Your task to perform on an android device: Go to notification settings Image 0: 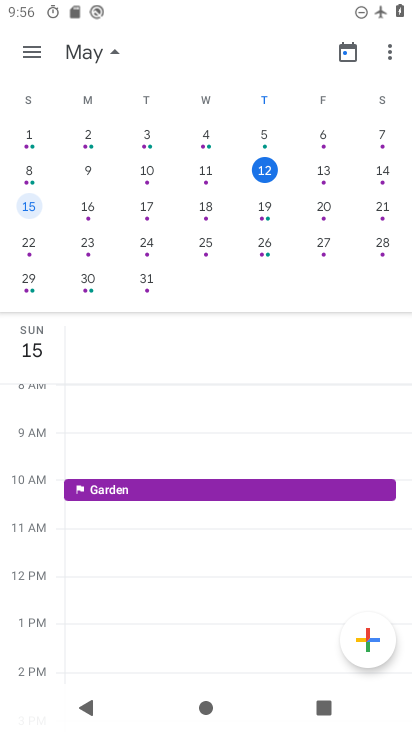
Step 0: press home button
Your task to perform on an android device: Go to notification settings Image 1: 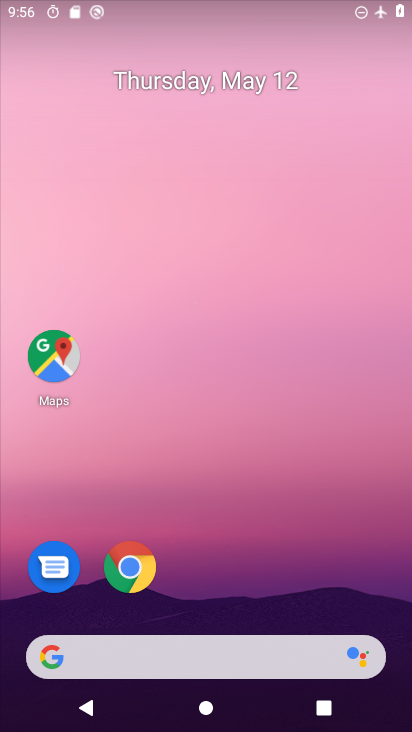
Step 1: drag from (233, 625) to (224, 196)
Your task to perform on an android device: Go to notification settings Image 2: 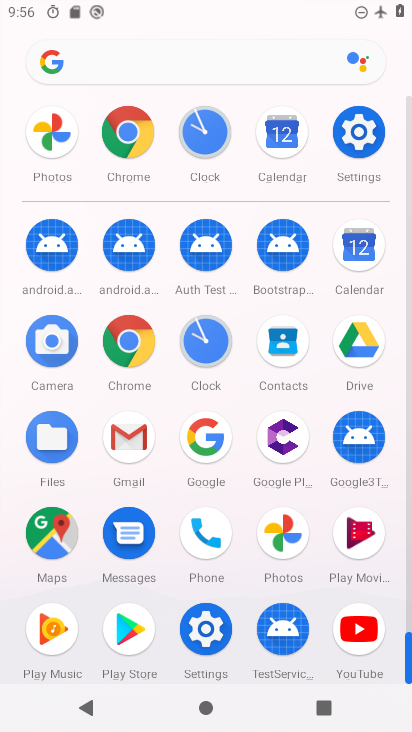
Step 2: click (366, 148)
Your task to perform on an android device: Go to notification settings Image 3: 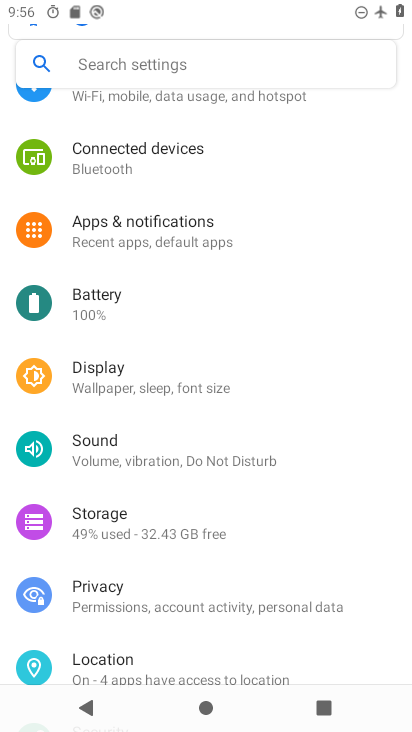
Step 3: drag from (272, 313) to (250, 546)
Your task to perform on an android device: Go to notification settings Image 4: 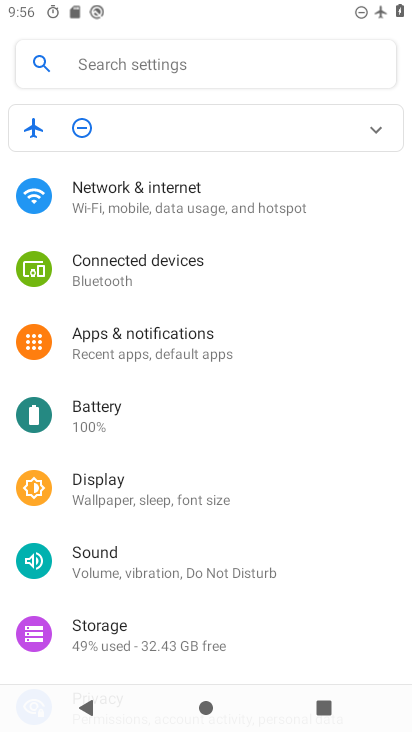
Step 4: drag from (235, 331) to (221, 546)
Your task to perform on an android device: Go to notification settings Image 5: 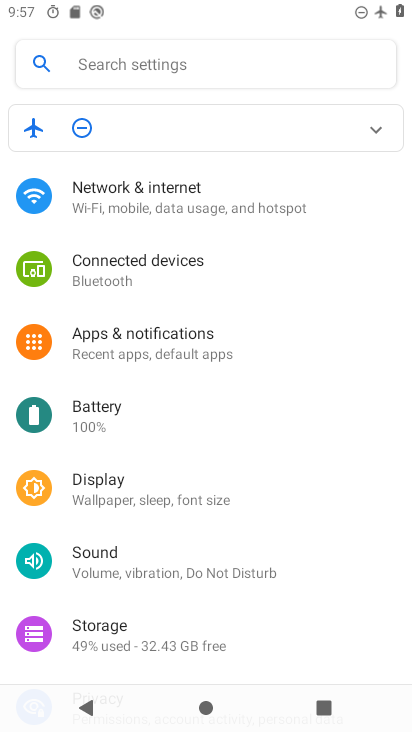
Step 5: click (234, 339)
Your task to perform on an android device: Go to notification settings Image 6: 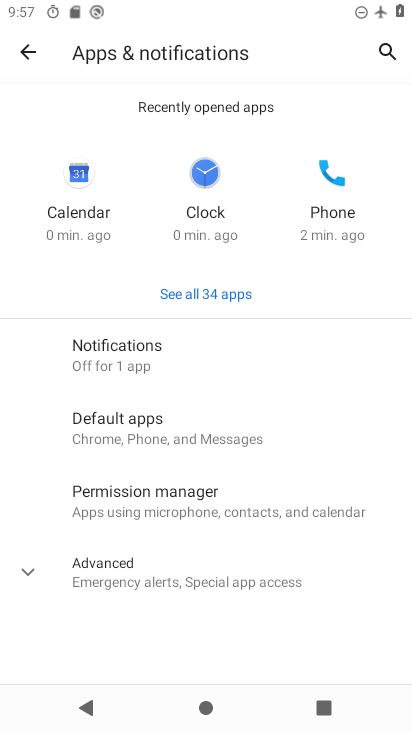
Step 6: click (233, 369)
Your task to perform on an android device: Go to notification settings Image 7: 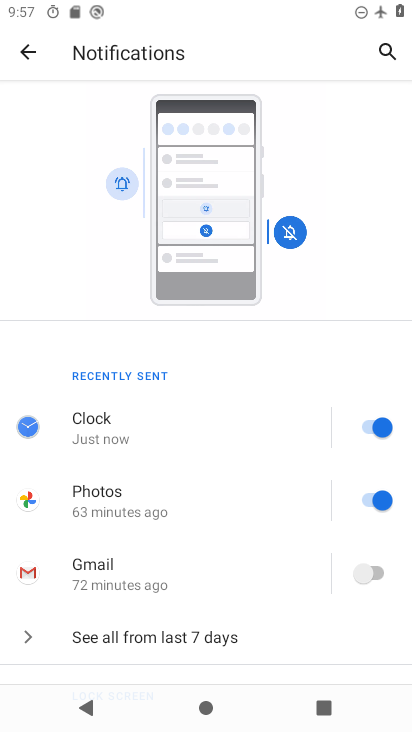
Step 7: drag from (183, 551) to (224, 229)
Your task to perform on an android device: Go to notification settings Image 8: 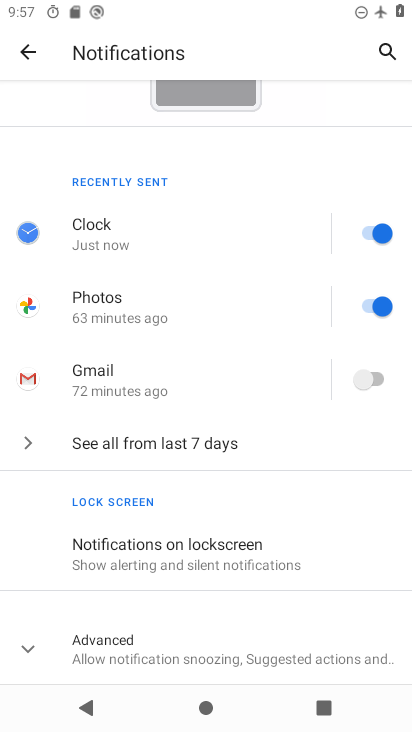
Step 8: drag from (206, 531) to (244, 286)
Your task to perform on an android device: Go to notification settings Image 9: 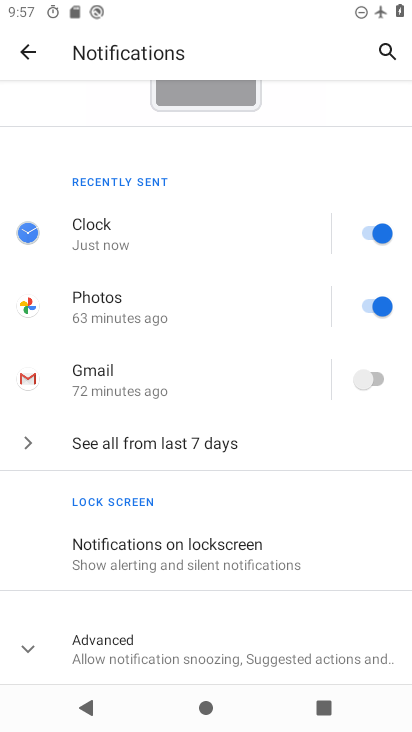
Step 9: drag from (269, 384) to (271, 650)
Your task to perform on an android device: Go to notification settings Image 10: 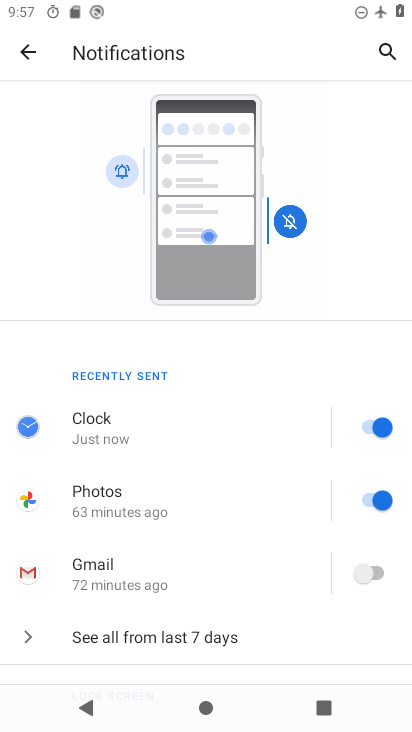
Step 10: drag from (234, 536) to (274, 229)
Your task to perform on an android device: Go to notification settings Image 11: 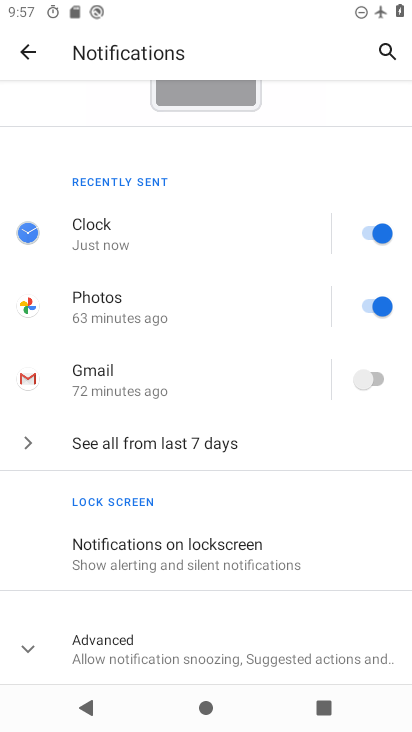
Step 11: click (208, 564)
Your task to perform on an android device: Go to notification settings Image 12: 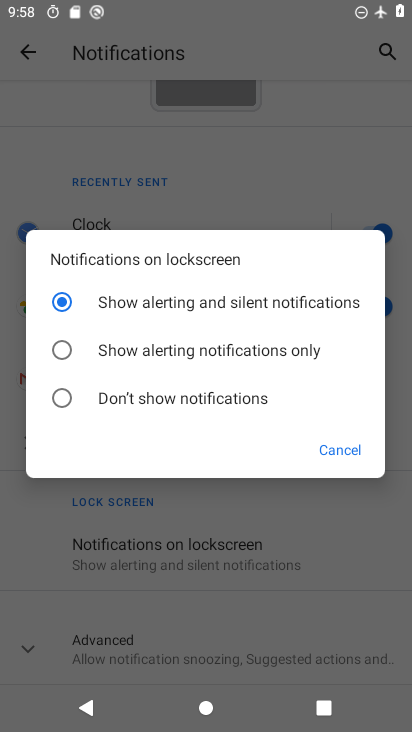
Step 12: click (320, 450)
Your task to perform on an android device: Go to notification settings Image 13: 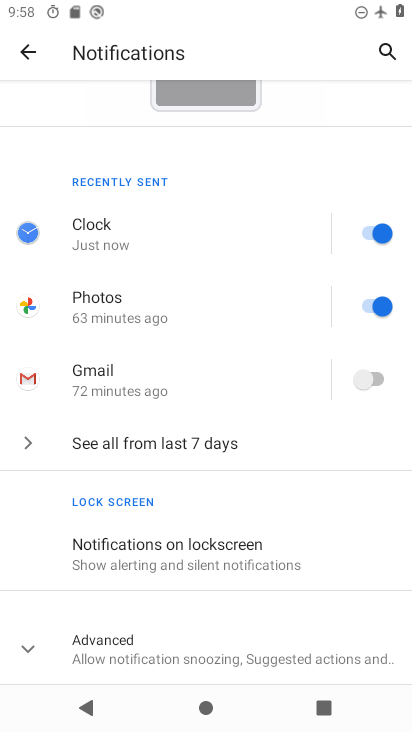
Step 13: task complete